Your task to perform on an android device: uninstall "Duolingo: language lessons" Image 0: 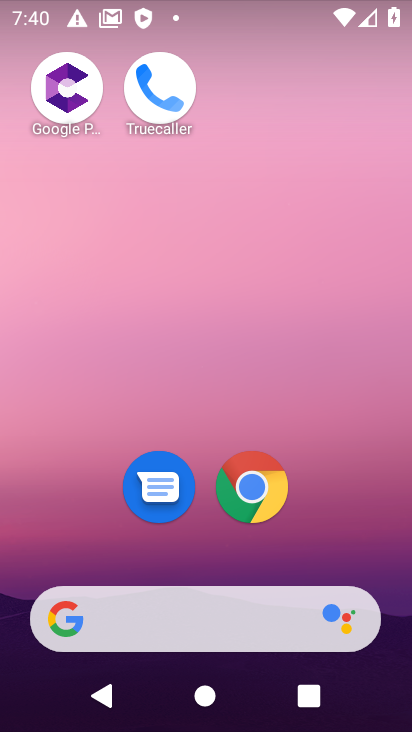
Step 0: drag from (374, 562) to (354, 89)
Your task to perform on an android device: uninstall "Duolingo: language lessons" Image 1: 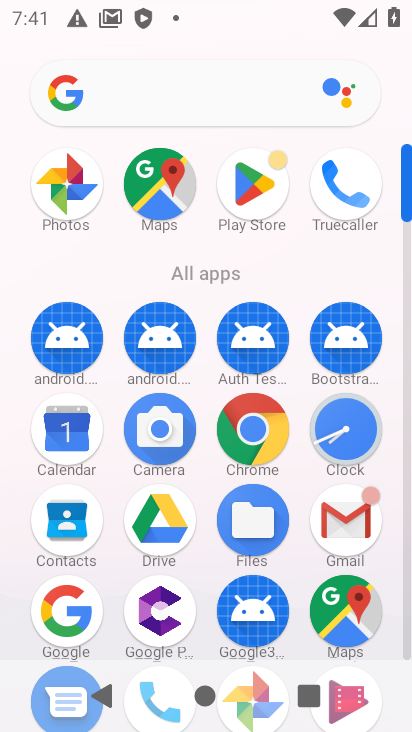
Step 1: click (261, 191)
Your task to perform on an android device: uninstall "Duolingo: language lessons" Image 2: 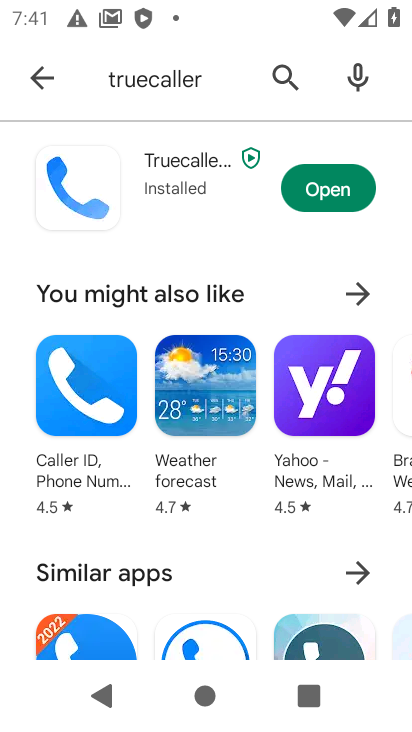
Step 2: click (288, 78)
Your task to perform on an android device: uninstall "Duolingo: language lessons" Image 3: 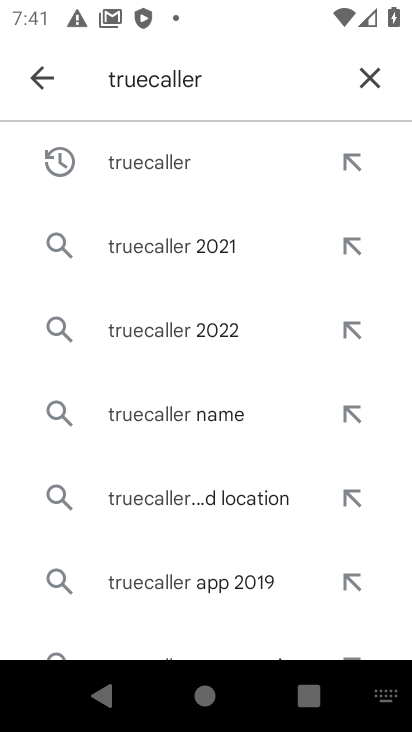
Step 3: click (371, 79)
Your task to perform on an android device: uninstall "Duolingo: language lessons" Image 4: 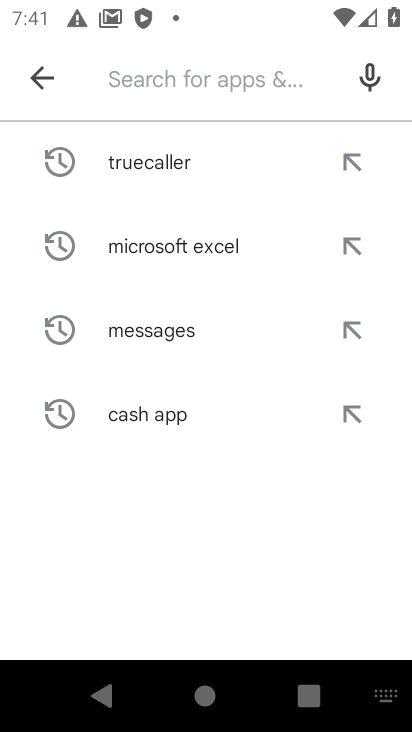
Step 4: type "Duolingo: language lessons"
Your task to perform on an android device: uninstall "Duolingo: language lessons" Image 5: 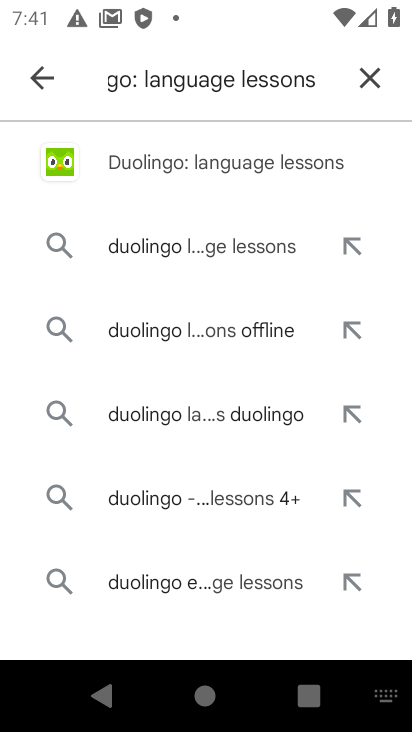
Step 5: click (229, 176)
Your task to perform on an android device: uninstall "Duolingo: language lessons" Image 6: 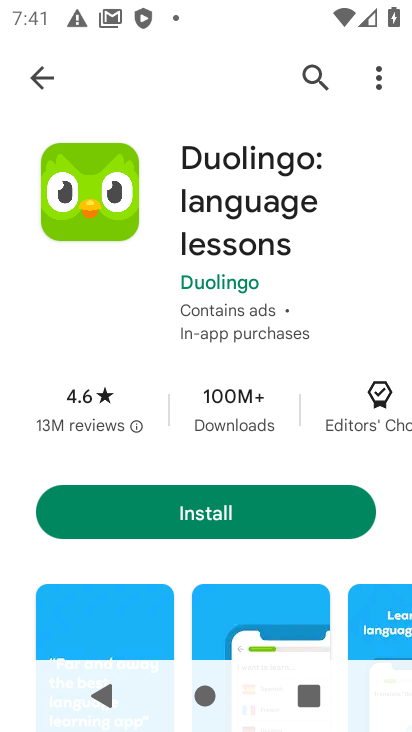
Step 6: task complete